Your task to perform on an android device: What's the weather going to be this weekend? Image 0: 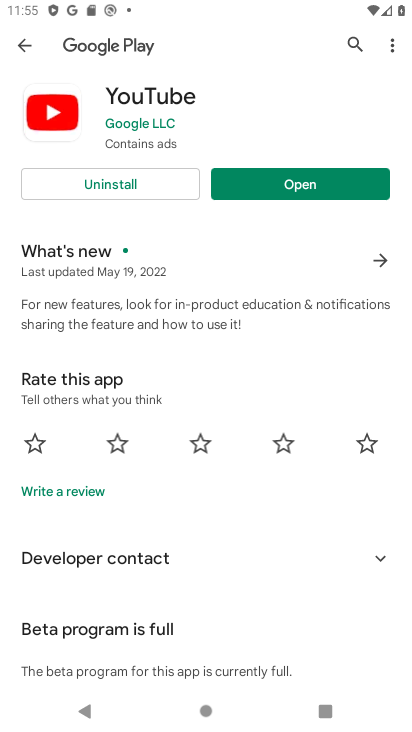
Step 0: press home button
Your task to perform on an android device: What's the weather going to be this weekend? Image 1: 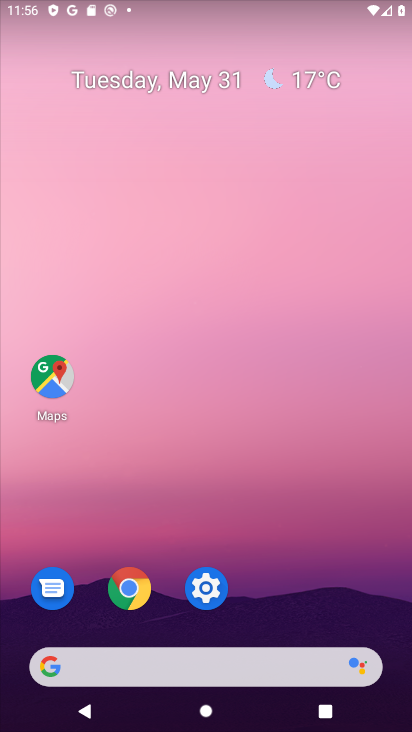
Step 1: drag from (234, 689) to (326, 511)
Your task to perform on an android device: What's the weather going to be this weekend? Image 2: 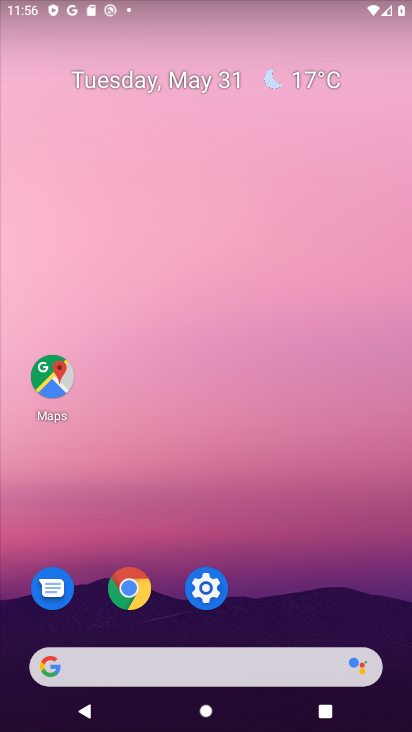
Step 2: click (149, 663)
Your task to perform on an android device: What's the weather going to be this weekend? Image 3: 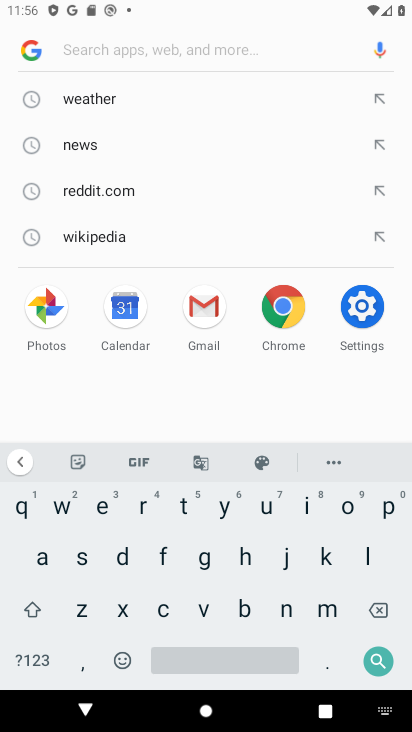
Step 3: click (128, 104)
Your task to perform on an android device: What's the weather going to be this weekend? Image 4: 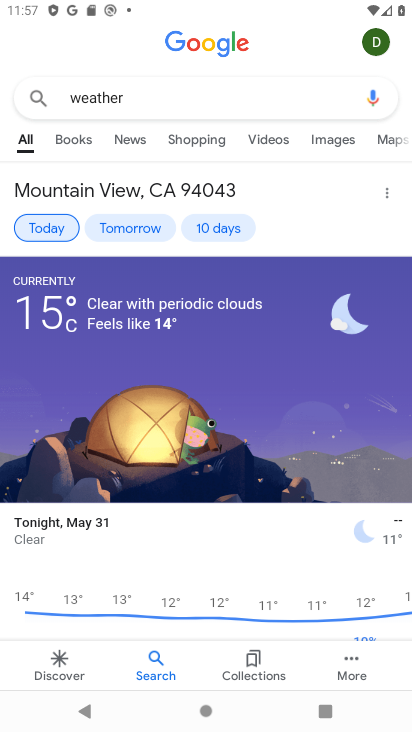
Step 4: click (209, 220)
Your task to perform on an android device: What's the weather going to be this weekend? Image 5: 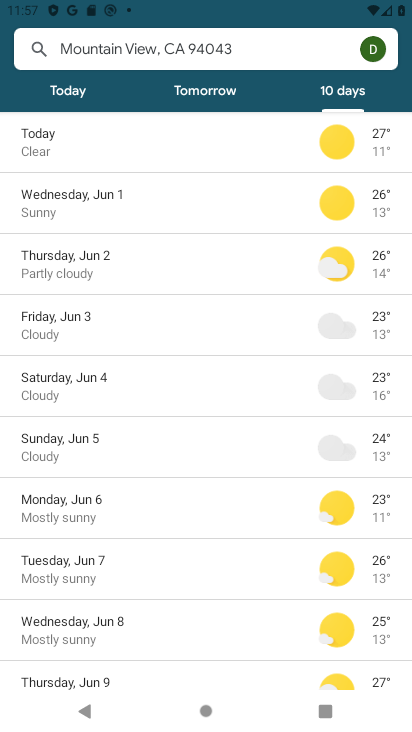
Step 5: task complete